Your task to perform on an android device: turn pop-ups on in chrome Image 0: 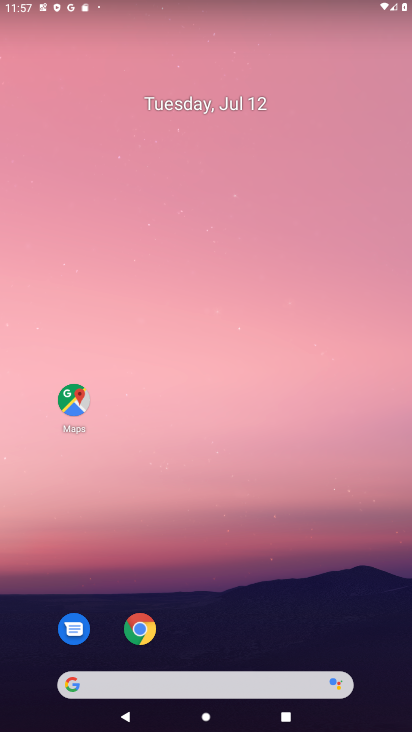
Step 0: click (144, 627)
Your task to perform on an android device: turn pop-ups on in chrome Image 1: 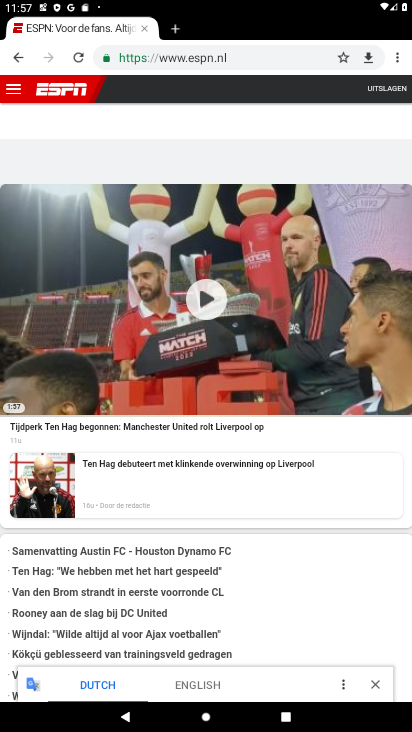
Step 1: click (394, 57)
Your task to perform on an android device: turn pop-ups on in chrome Image 2: 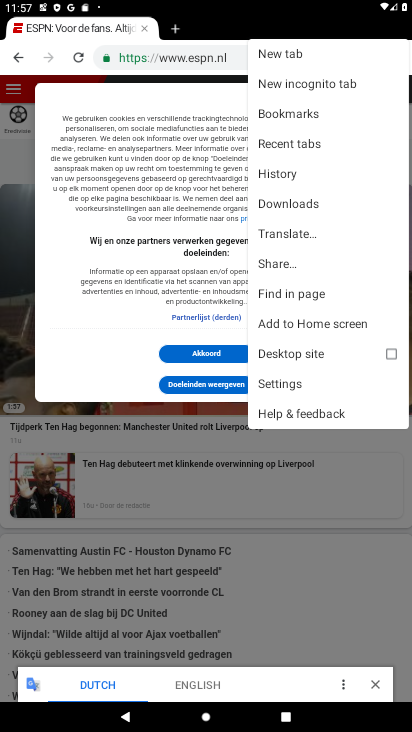
Step 2: click (286, 380)
Your task to perform on an android device: turn pop-ups on in chrome Image 3: 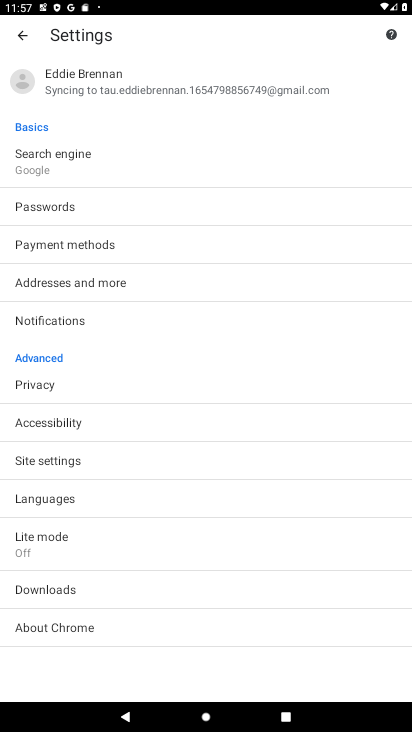
Step 3: click (59, 467)
Your task to perform on an android device: turn pop-ups on in chrome Image 4: 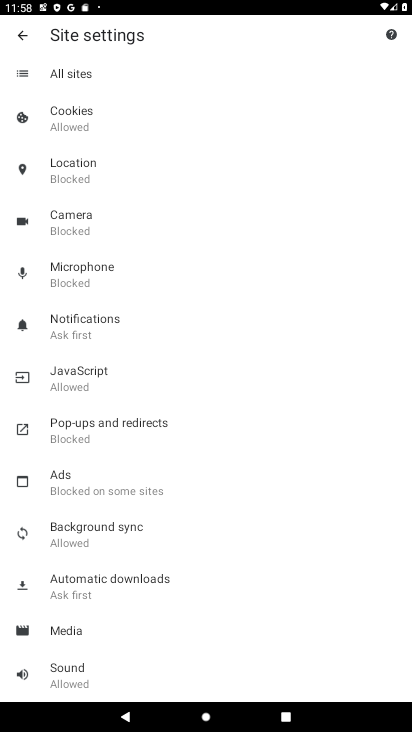
Step 4: click (121, 438)
Your task to perform on an android device: turn pop-ups on in chrome Image 5: 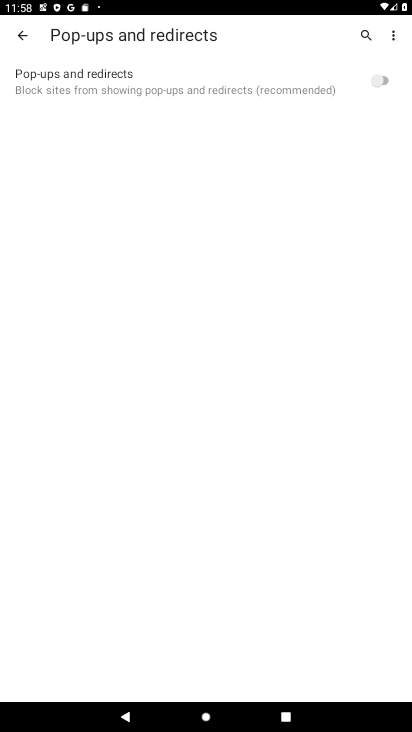
Step 5: click (383, 78)
Your task to perform on an android device: turn pop-ups on in chrome Image 6: 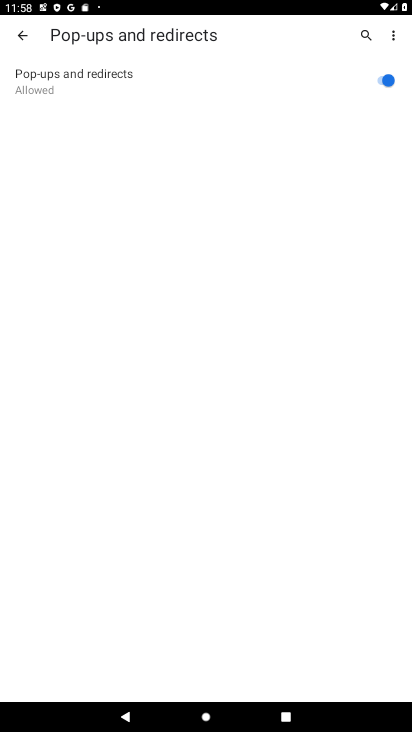
Step 6: task complete